Your task to perform on an android device: Go to wifi settings Image 0: 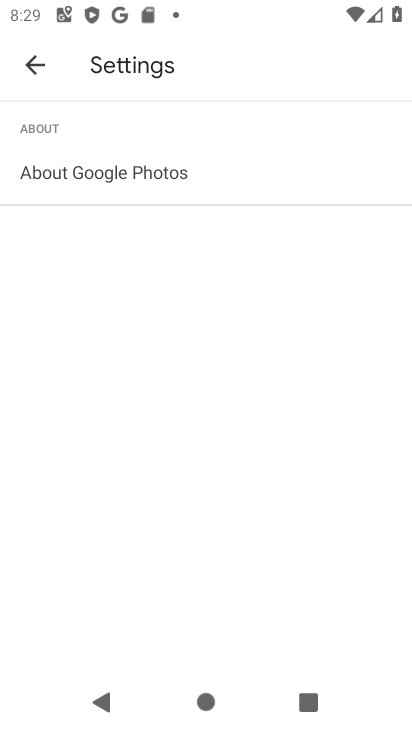
Step 0: press home button
Your task to perform on an android device: Go to wifi settings Image 1: 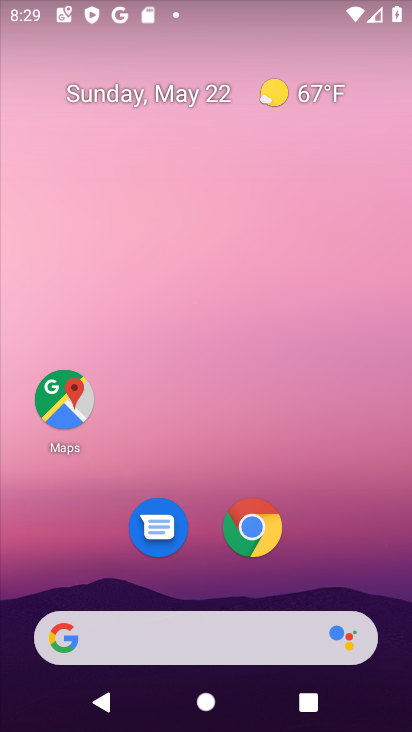
Step 1: drag from (211, 576) to (204, 0)
Your task to perform on an android device: Go to wifi settings Image 2: 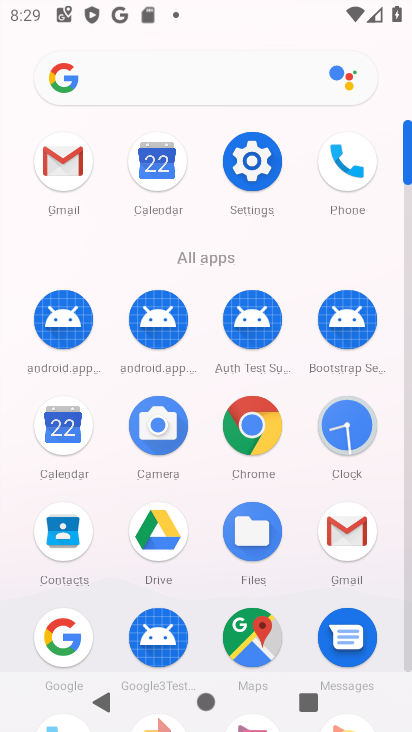
Step 2: click (242, 152)
Your task to perform on an android device: Go to wifi settings Image 3: 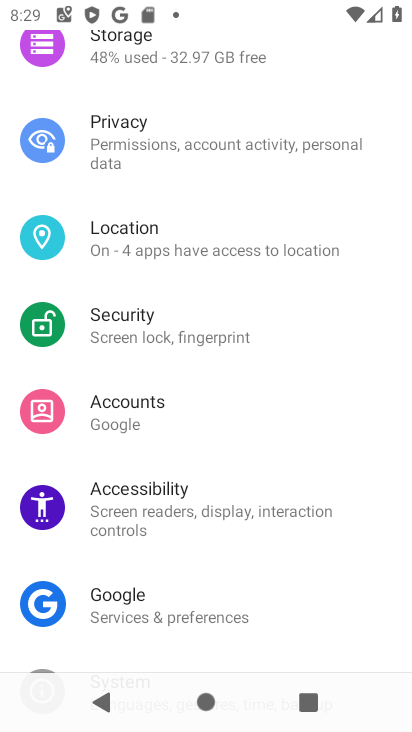
Step 3: drag from (183, 81) to (178, 727)
Your task to perform on an android device: Go to wifi settings Image 4: 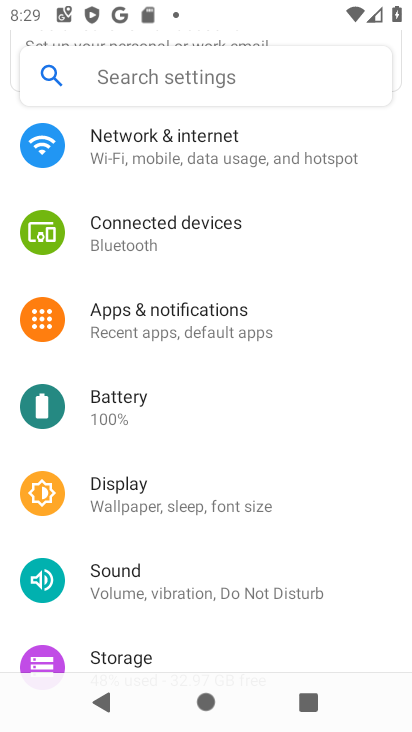
Step 4: click (184, 159)
Your task to perform on an android device: Go to wifi settings Image 5: 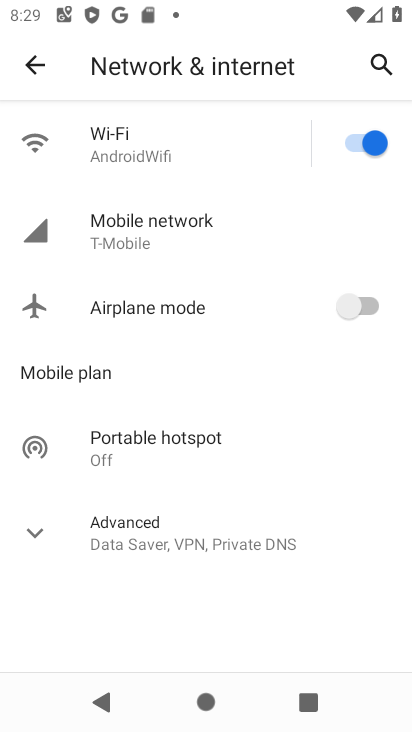
Step 5: click (196, 138)
Your task to perform on an android device: Go to wifi settings Image 6: 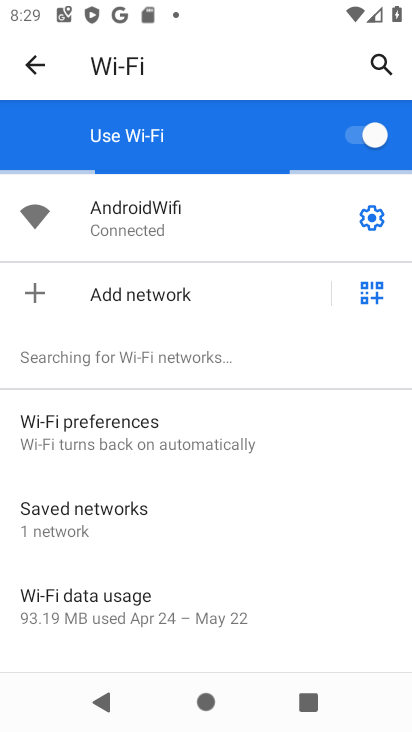
Step 6: task complete